Your task to perform on an android device: What's on the menu at IHOP? Image 0: 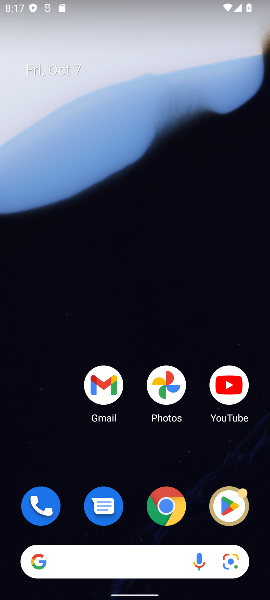
Step 0: click (166, 505)
Your task to perform on an android device: What's on the menu at IHOP? Image 1: 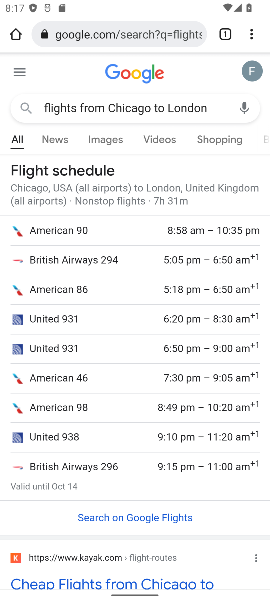
Step 1: click (156, 30)
Your task to perform on an android device: What's on the menu at IHOP? Image 2: 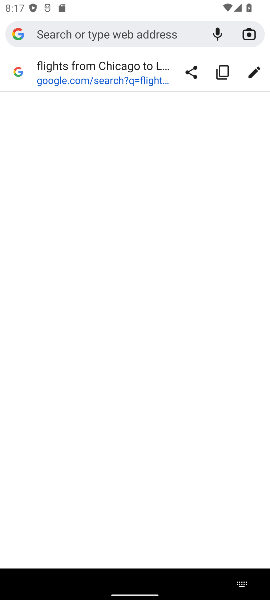
Step 2: type "menu at IHOP"
Your task to perform on an android device: What's on the menu at IHOP? Image 3: 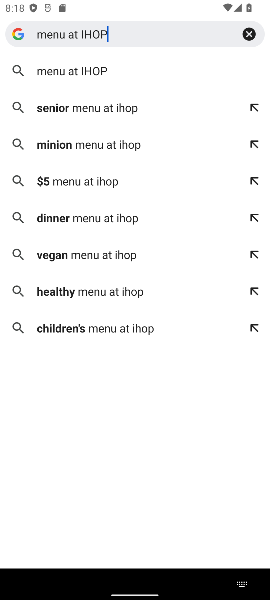
Step 3: click (83, 76)
Your task to perform on an android device: What's on the menu at IHOP? Image 4: 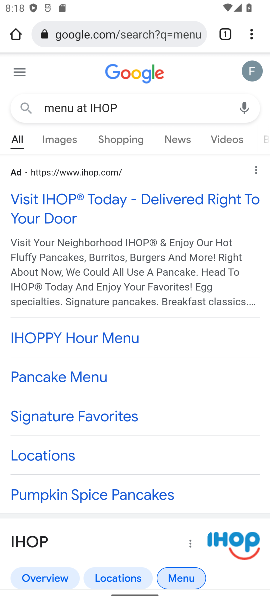
Step 4: drag from (179, 468) to (229, 143)
Your task to perform on an android device: What's on the menu at IHOP? Image 5: 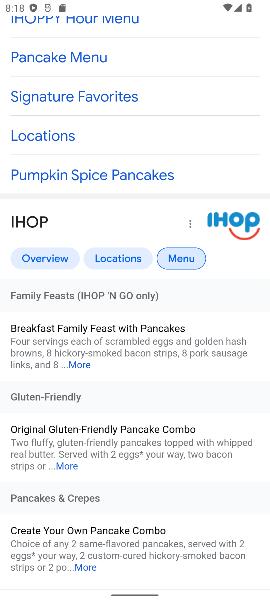
Step 5: drag from (133, 528) to (193, 233)
Your task to perform on an android device: What's on the menu at IHOP? Image 6: 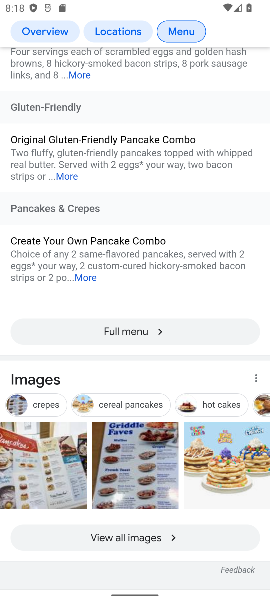
Step 6: click (146, 330)
Your task to perform on an android device: What's on the menu at IHOP? Image 7: 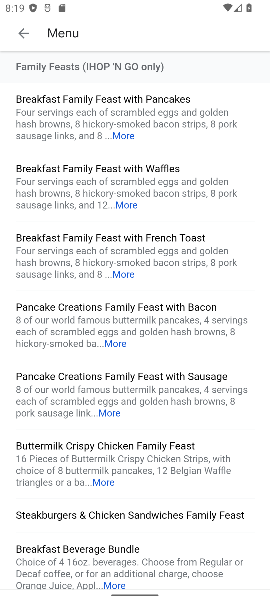
Step 7: task complete